Your task to perform on an android device: Go to Reddit.com Image 0: 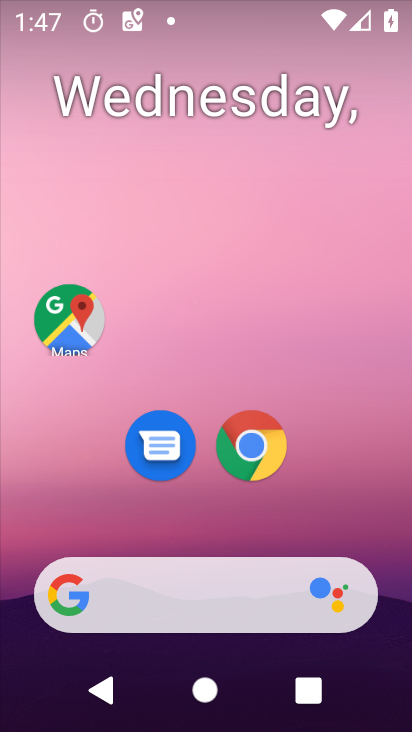
Step 0: press home button
Your task to perform on an android device: Go to Reddit.com Image 1: 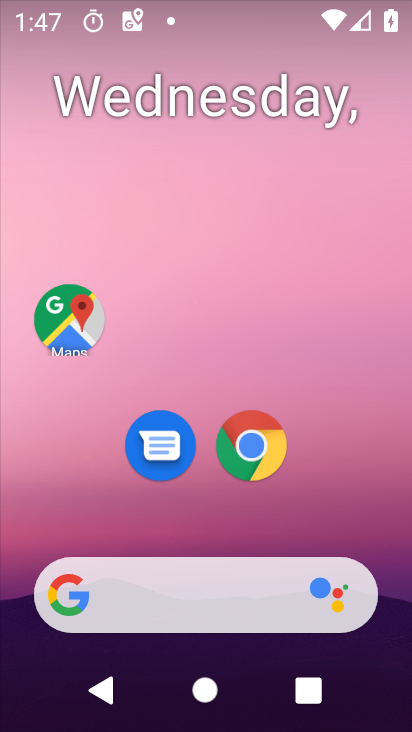
Step 1: drag from (369, 503) to (329, 128)
Your task to perform on an android device: Go to Reddit.com Image 2: 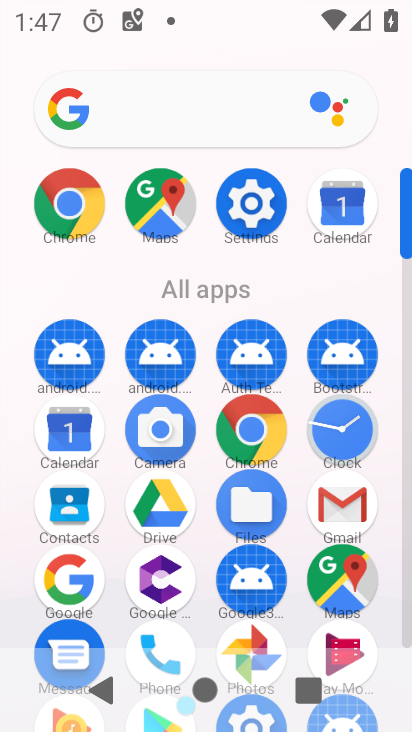
Step 2: click (46, 198)
Your task to perform on an android device: Go to Reddit.com Image 3: 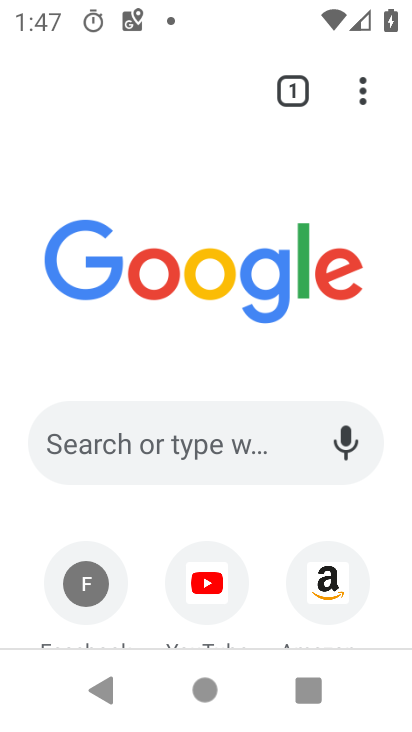
Step 3: drag from (279, 391) to (271, 98)
Your task to perform on an android device: Go to Reddit.com Image 4: 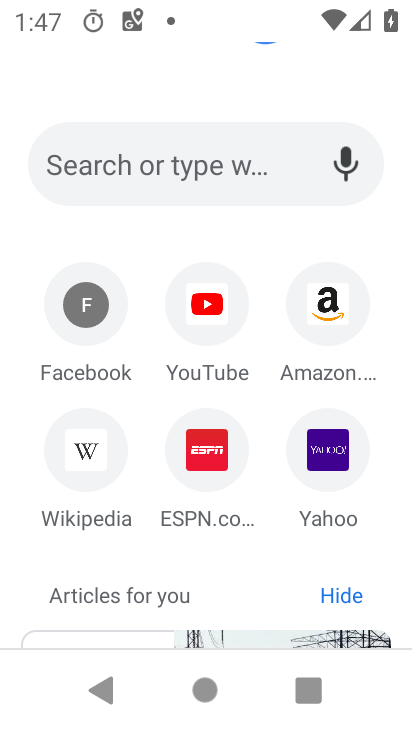
Step 4: click (196, 178)
Your task to perform on an android device: Go to Reddit.com Image 5: 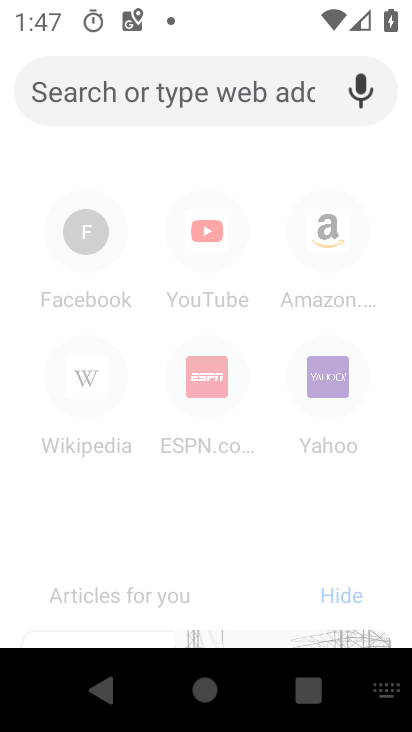
Step 5: type " Reddit.com"
Your task to perform on an android device: Go to Reddit.com Image 6: 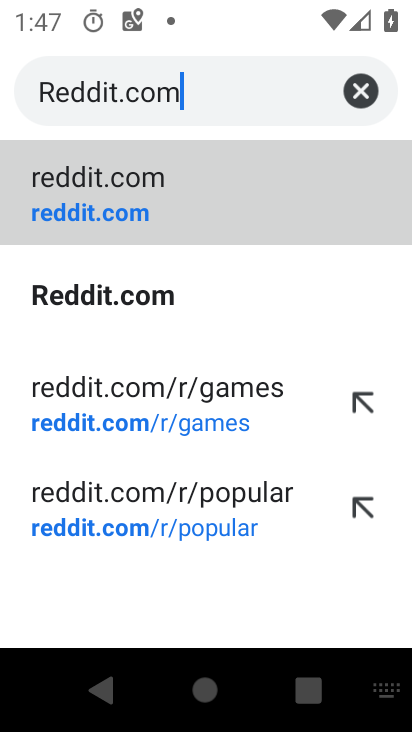
Step 6: click (140, 182)
Your task to perform on an android device: Go to Reddit.com Image 7: 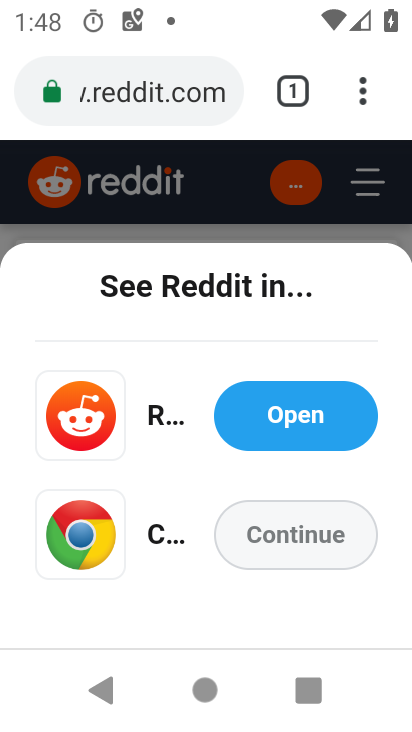
Step 7: task complete